Your task to perform on an android device: install app "Pinterest" Image 0: 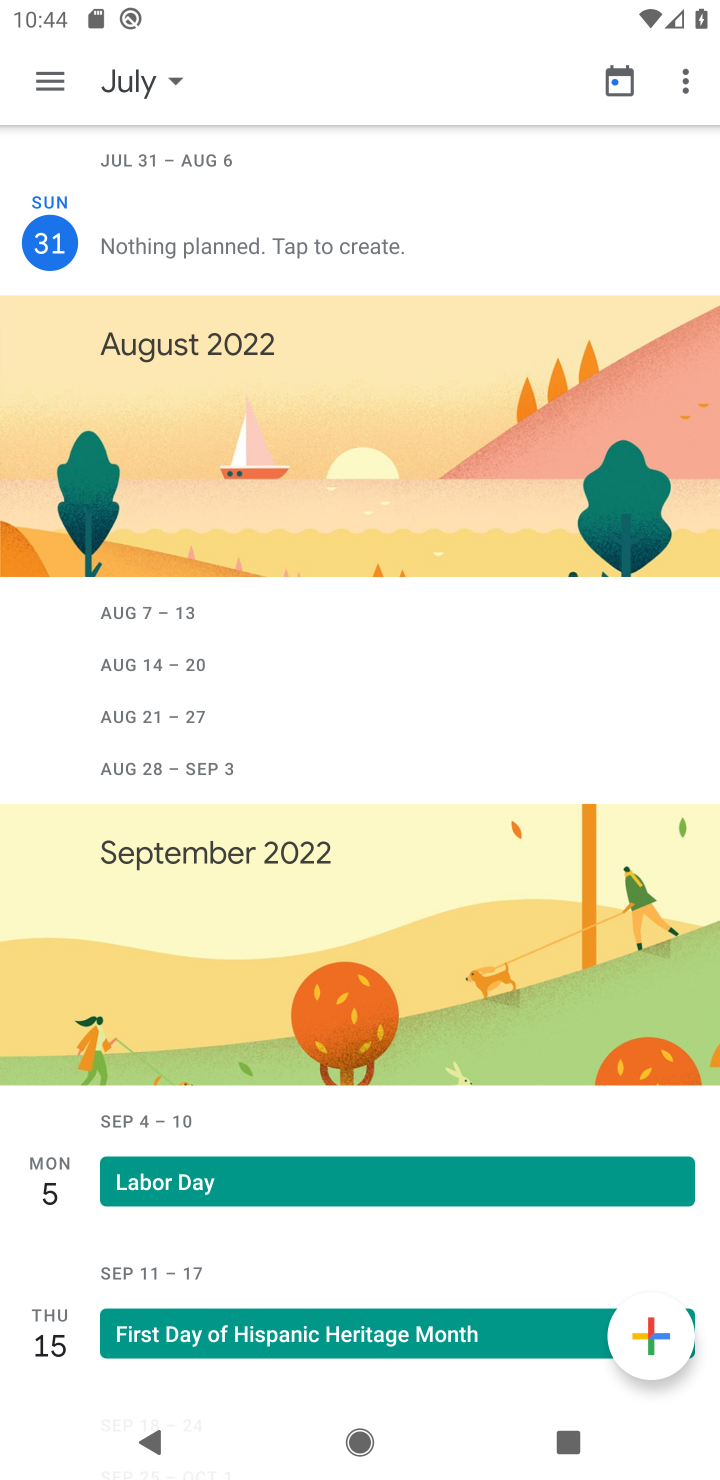
Step 0: press home button
Your task to perform on an android device: install app "Pinterest" Image 1: 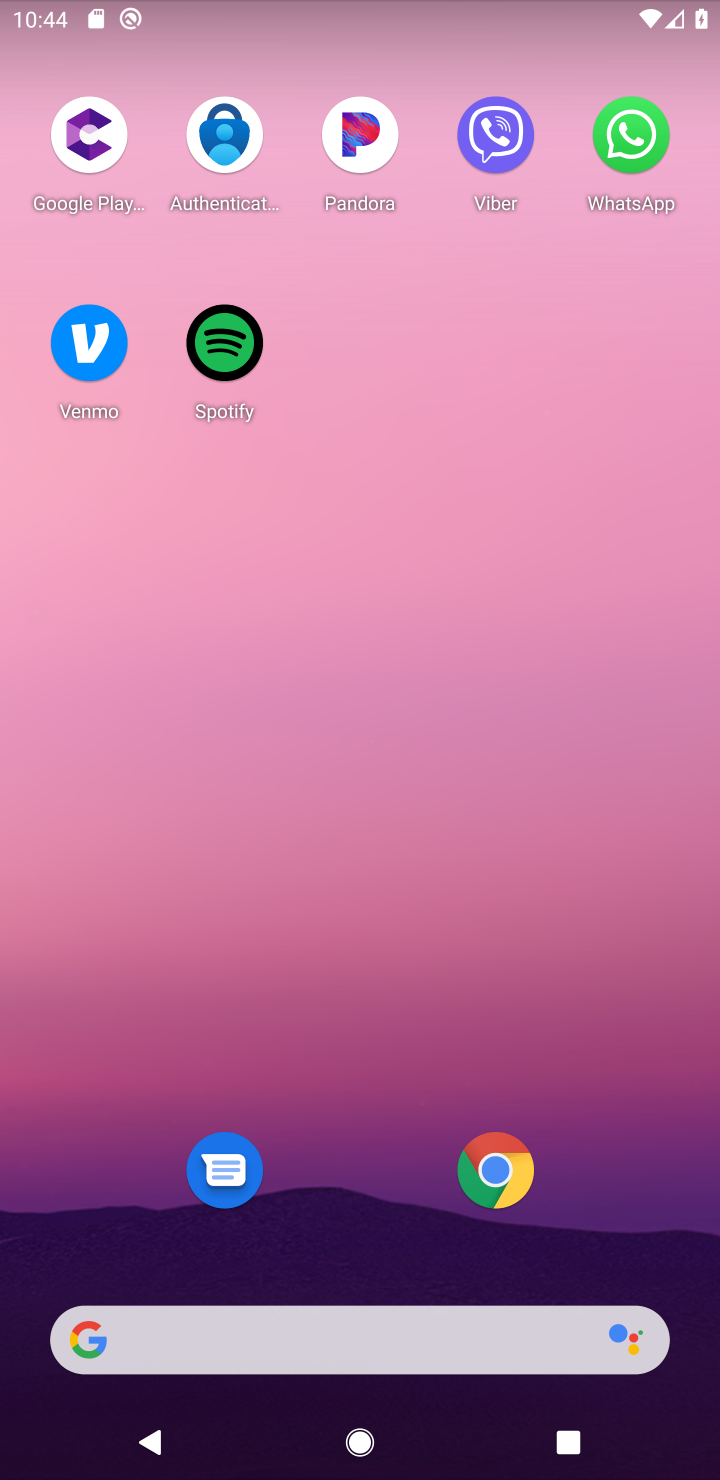
Step 1: drag from (617, 1201) to (334, 12)
Your task to perform on an android device: install app "Pinterest" Image 2: 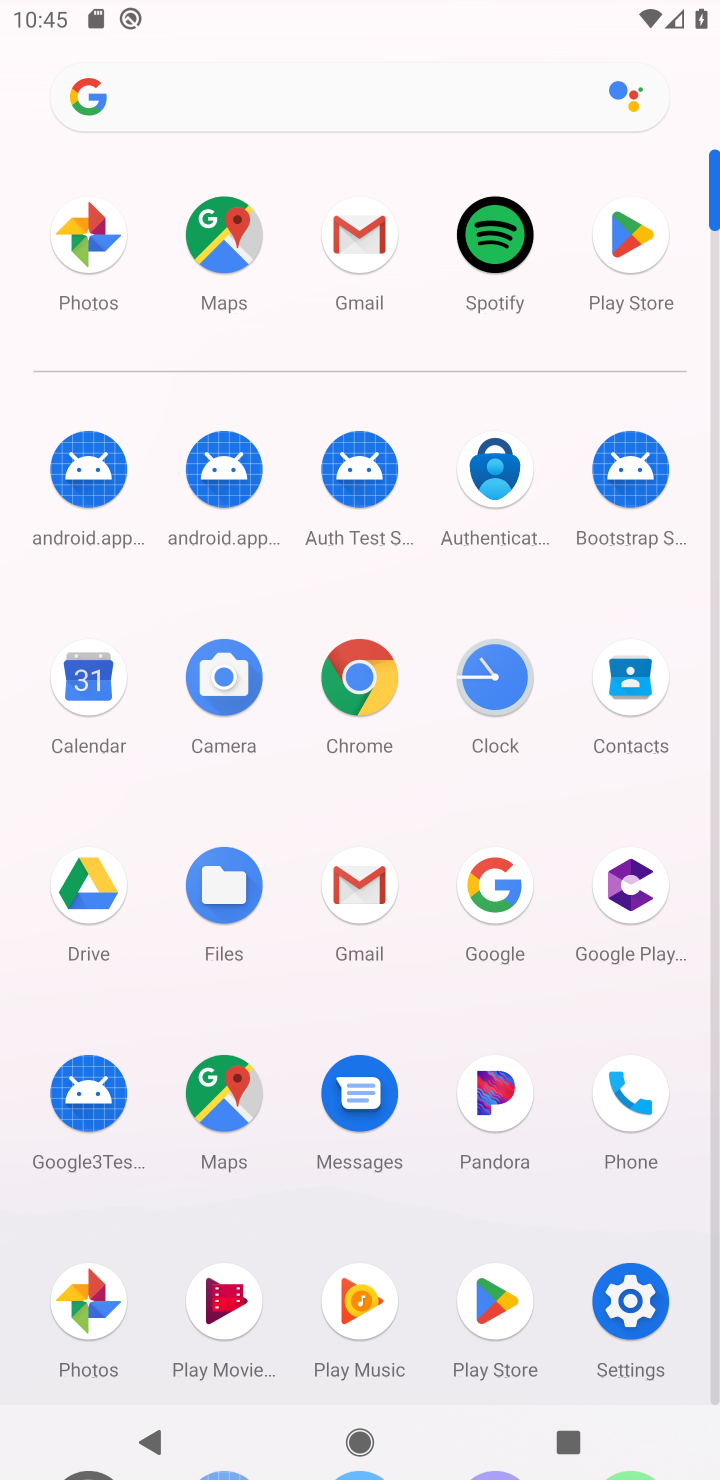
Step 2: click (618, 232)
Your task to perform on an android device: install app "Pinterest" Image 3: 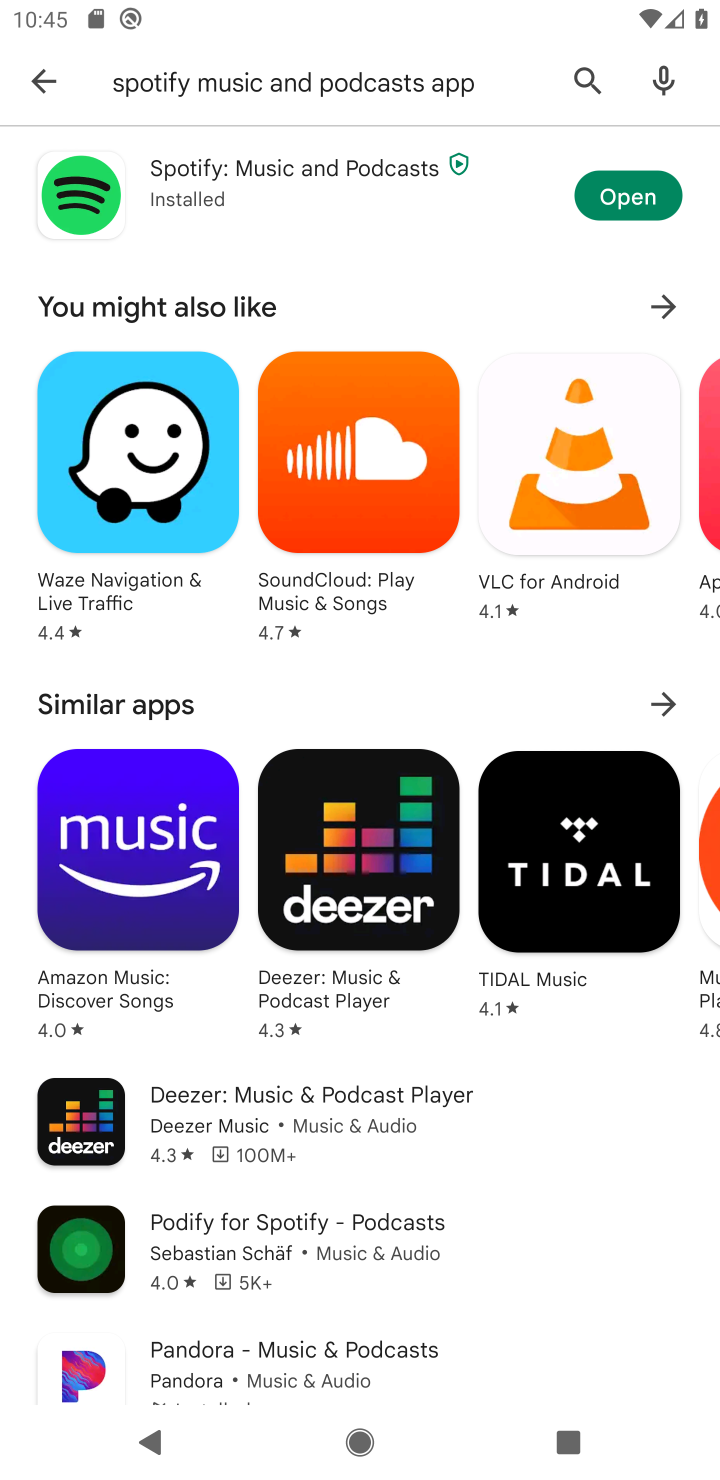
Step 3: press back button
Your task to perform on an android device: install app "Pinterest" Image 4: 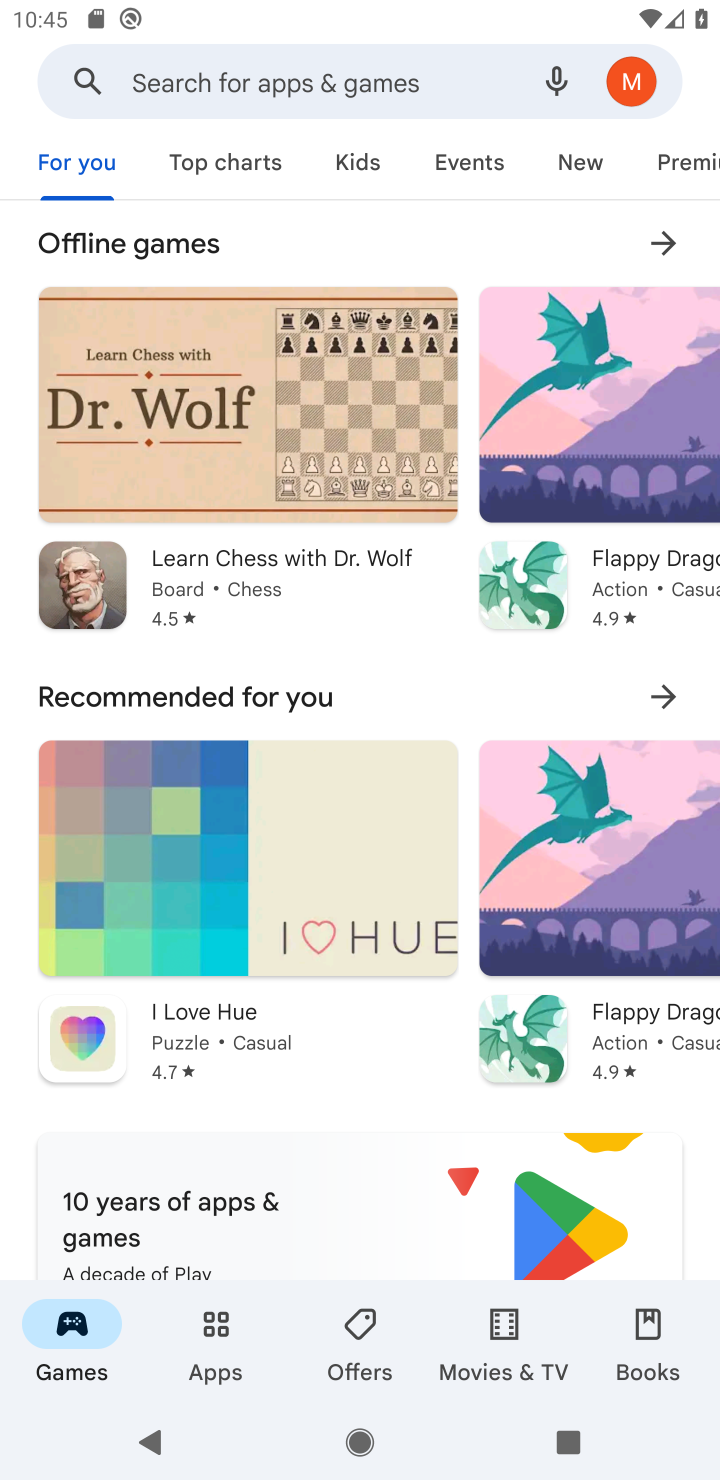
Step 4: click (191, 80)
Your task to perform on an android device: install app "Pinterest" Image 5: 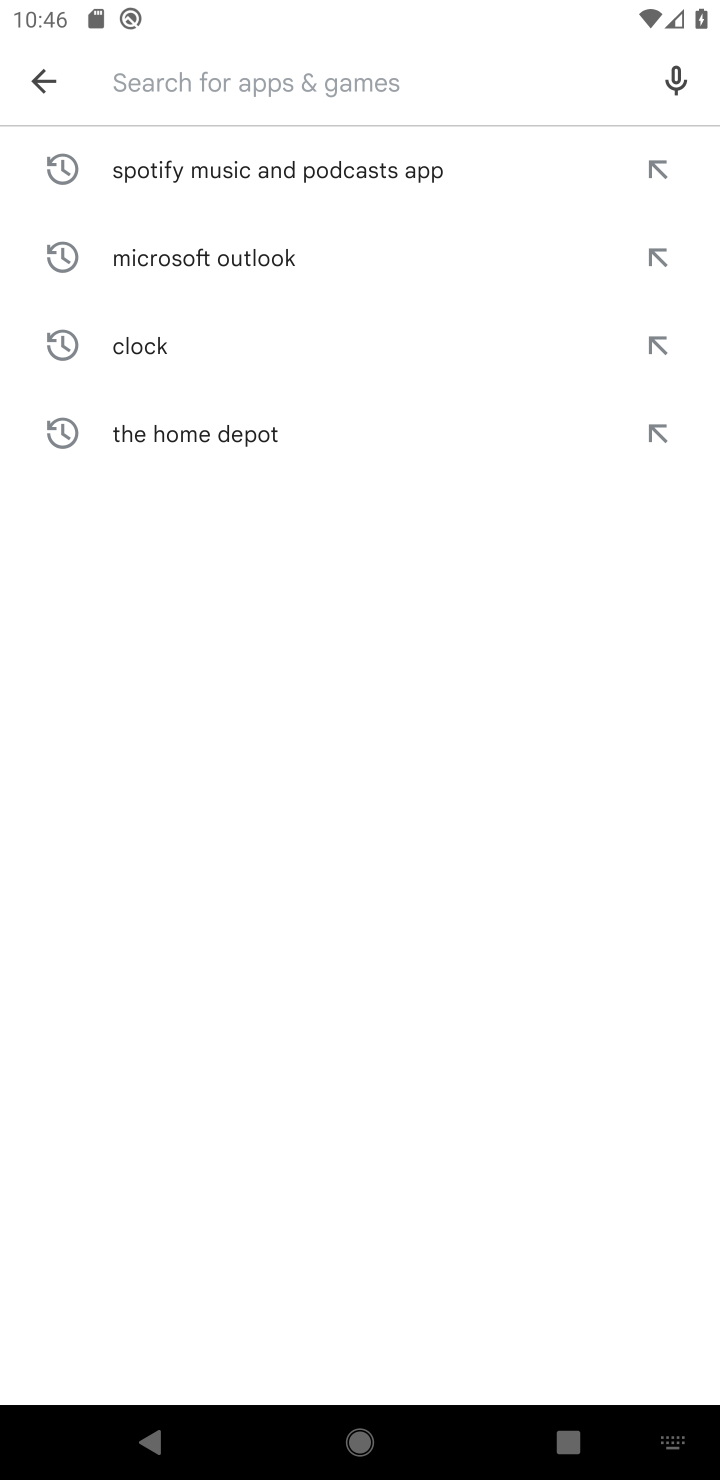
Step 5: type "Pinterest"
Your task to perform on an android device: install app "Pinterest" Image 6: 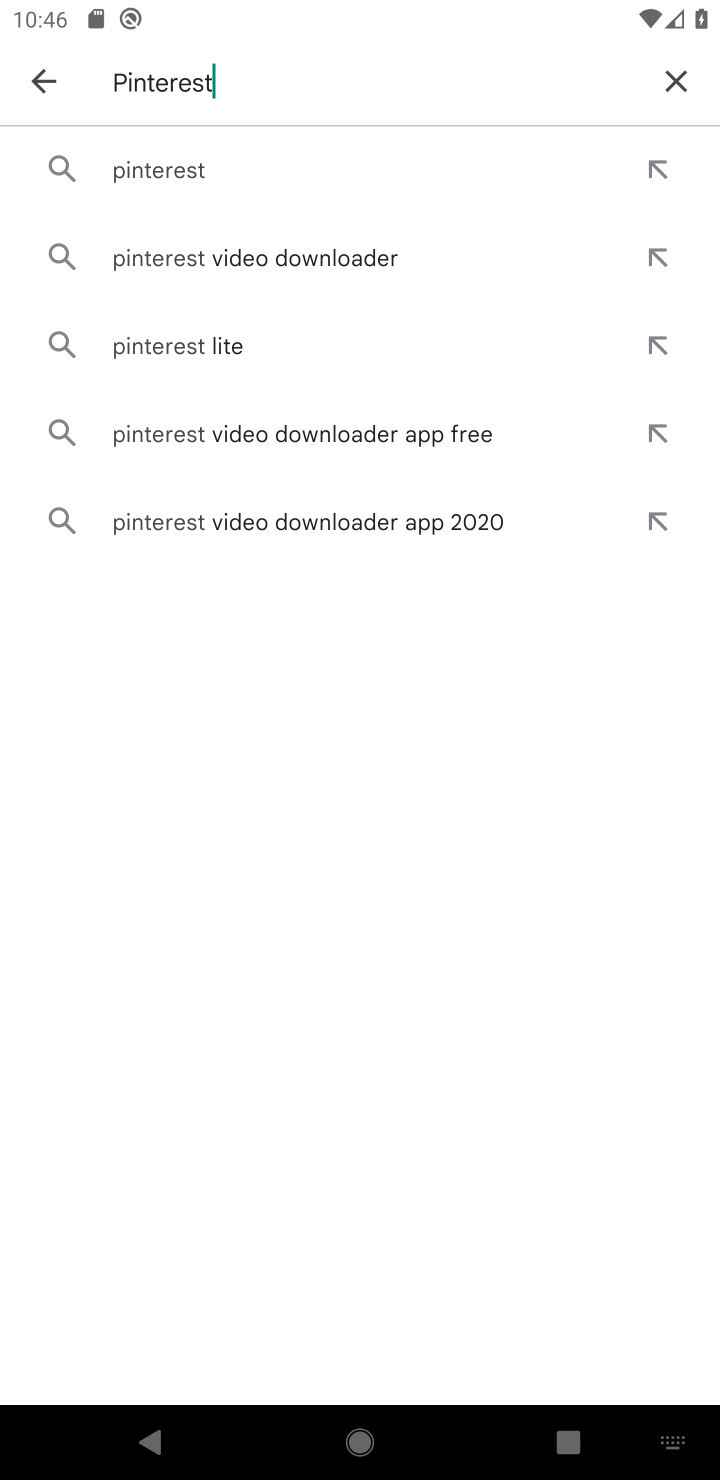
Step 6: click (224, 177)
Your task to perform on an android device: install app "Pinterest" Image 7: 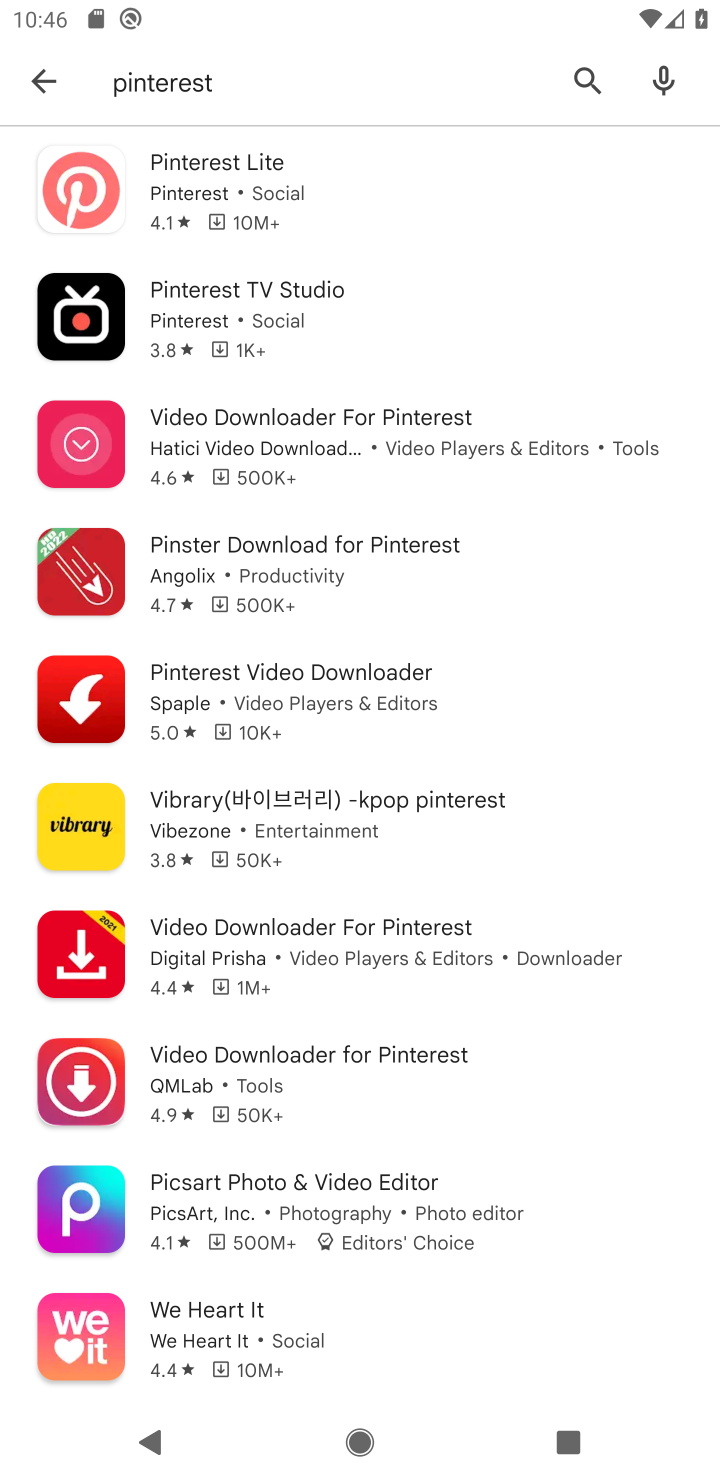
Step 7: click (222, 175)
Your task to perform on an android device: install app "Pinterest" Image 8: 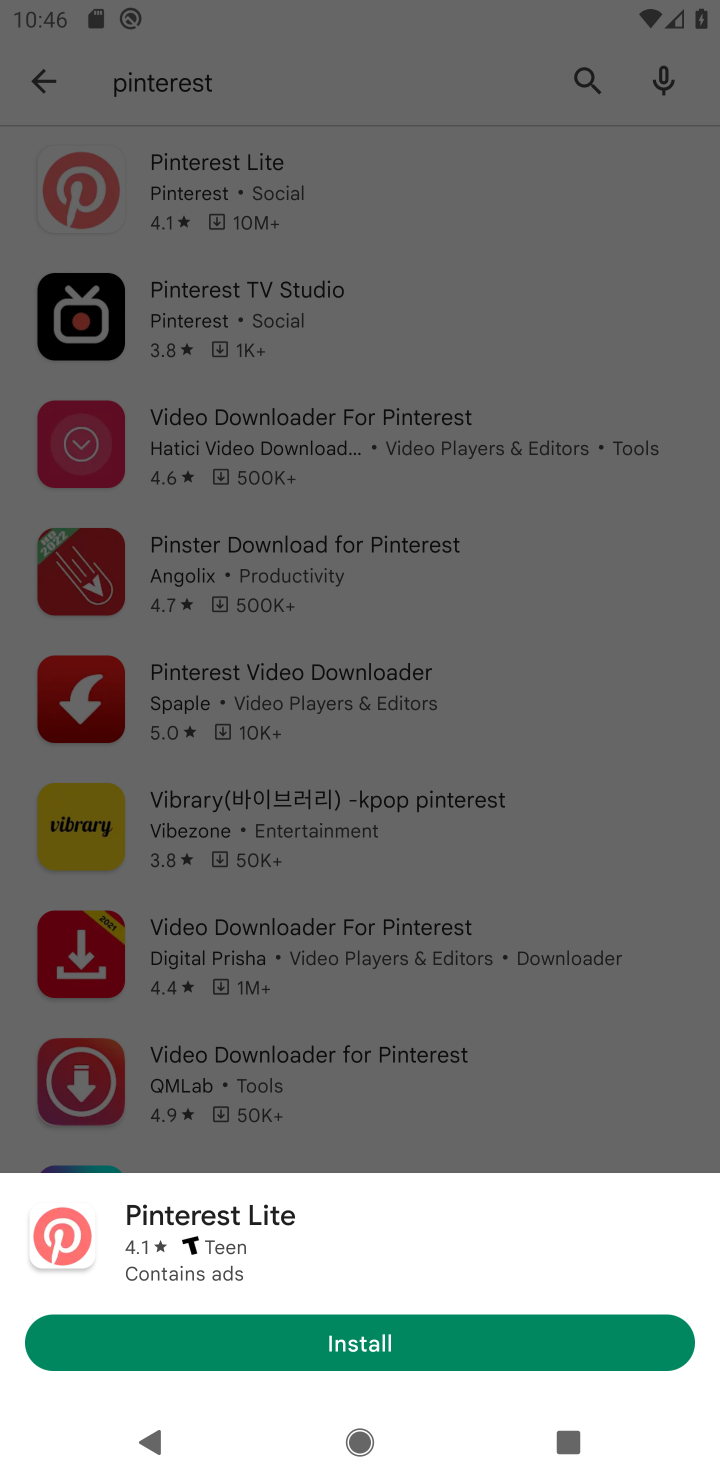
Step 8: task complete